Your task to perform on an android device: Open Chrome and go to the settings page Image 0: 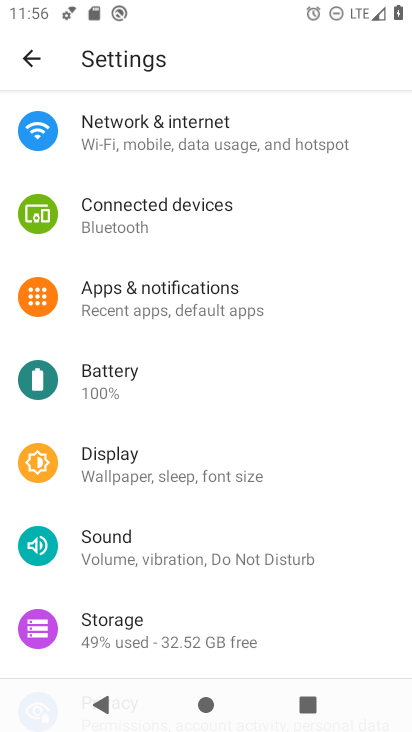
Step 0: press home button
Your task to perform on an android device: Open Chrome and go to the settings page Image 1: 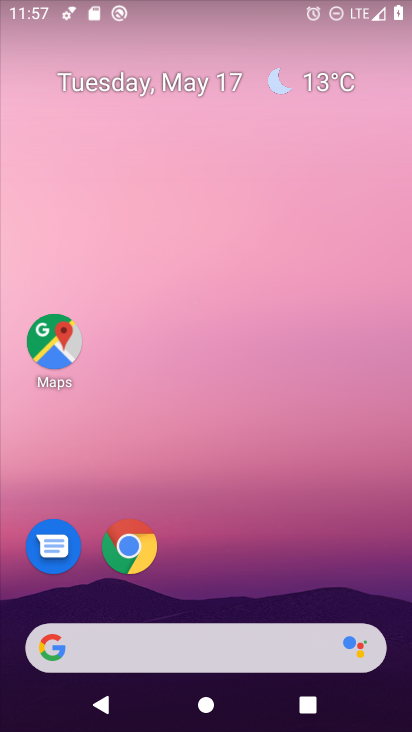
Step 1: click (142, 551)
Your task to perform on an android device: Open Chrome and go to the settings page Image 2: 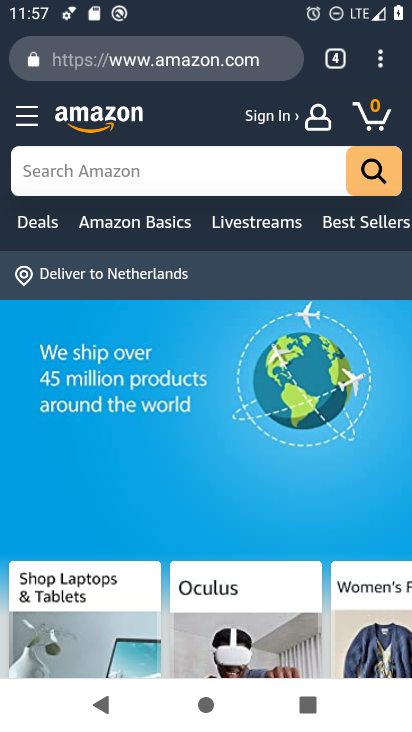
Step 2: click (383, 58)
Your task to perform on an android device: Open Chrome and go to the settings page Image 3: 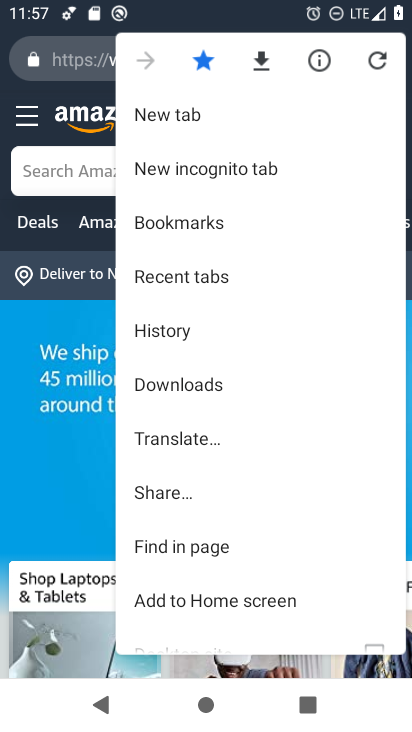
Step 3: drag from (227, 512) to (210, 202)
Your task to perform on an android device: Open Chrome and go to the settings page Image 4: 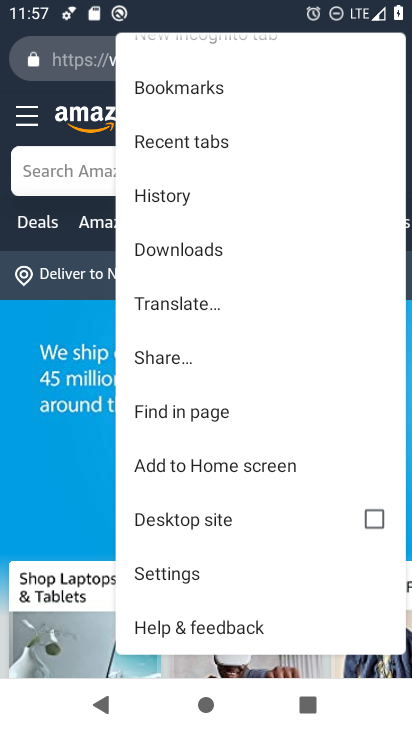
Step 4: click (174, 574)
Your task to perform on an android device: Open Chrome and go to the settings page Image 5: 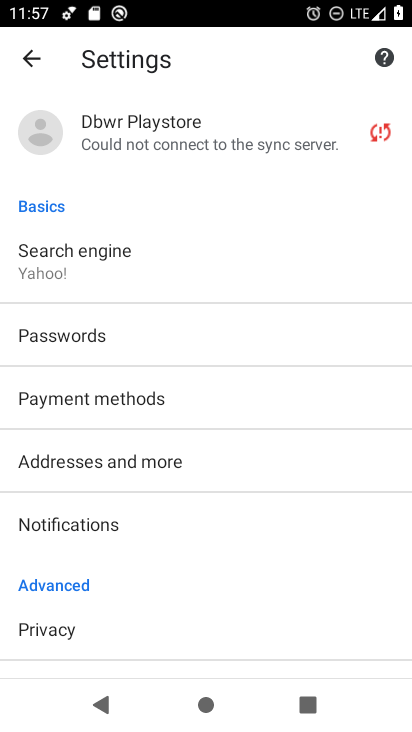
Step 5: task complete